Your task to perform on an android device: open app "Spotify" (install if not already installed) Image 0: 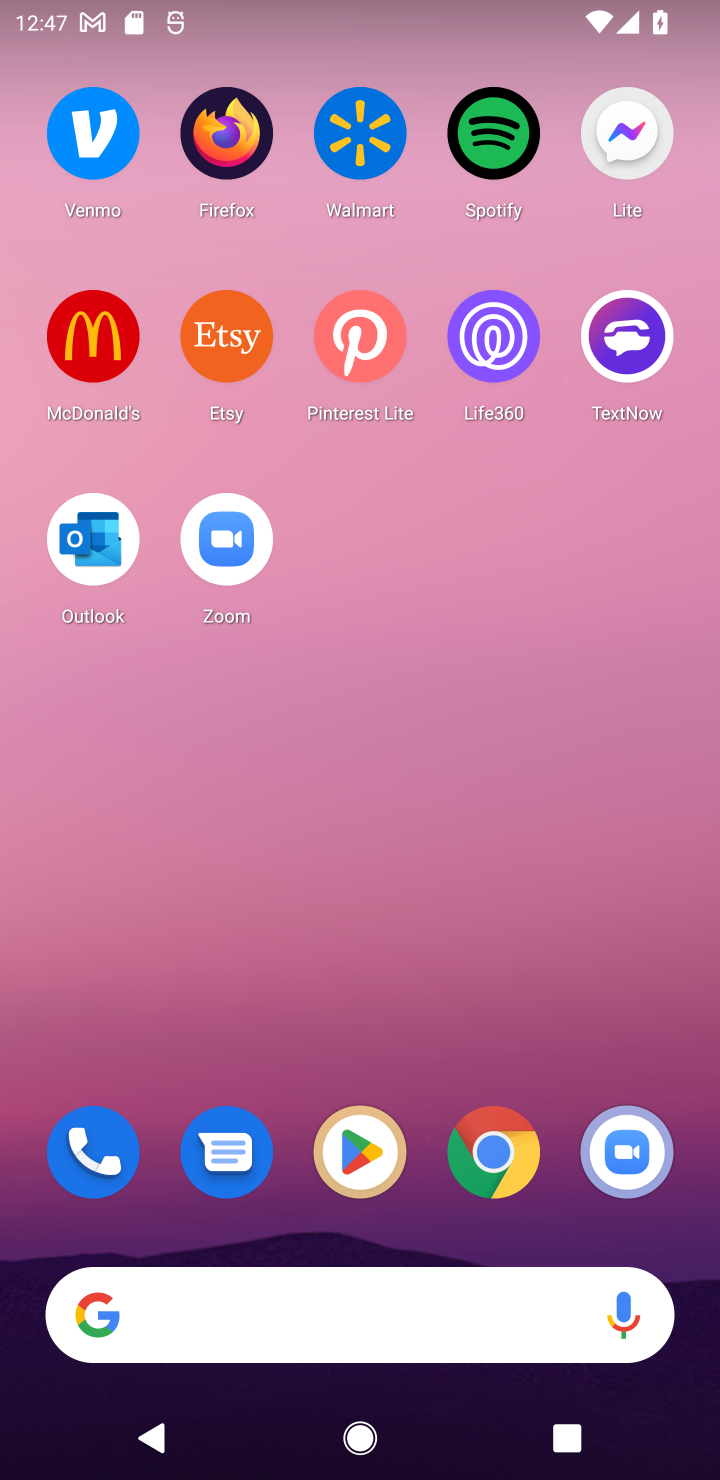
Step 0: click (344, 1157)
Your task to perform on an android device: open app "Spotify" (install if not already installed) Image 1: 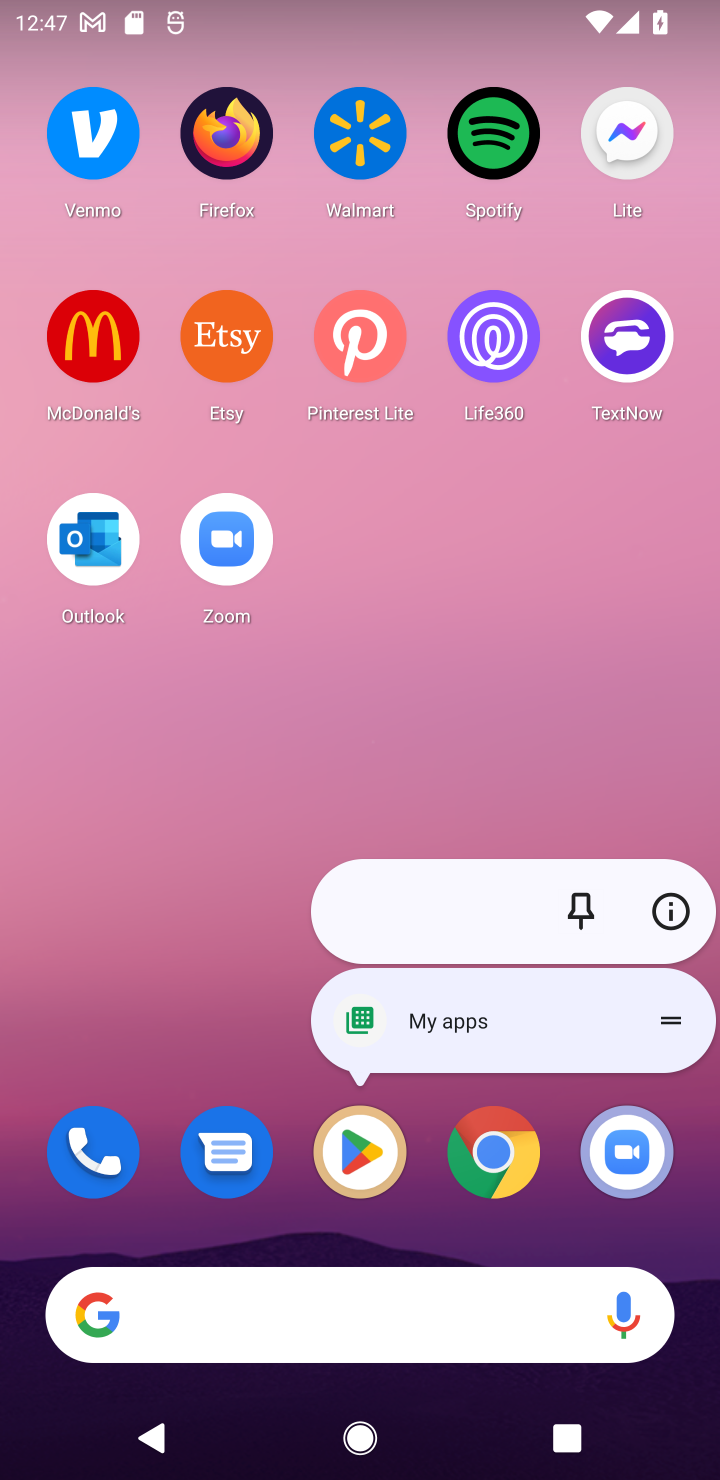
Step 1: click (325, 1157)
Your task to perform on an android device: open app "Spotify" (install if not already installed) Image 2: 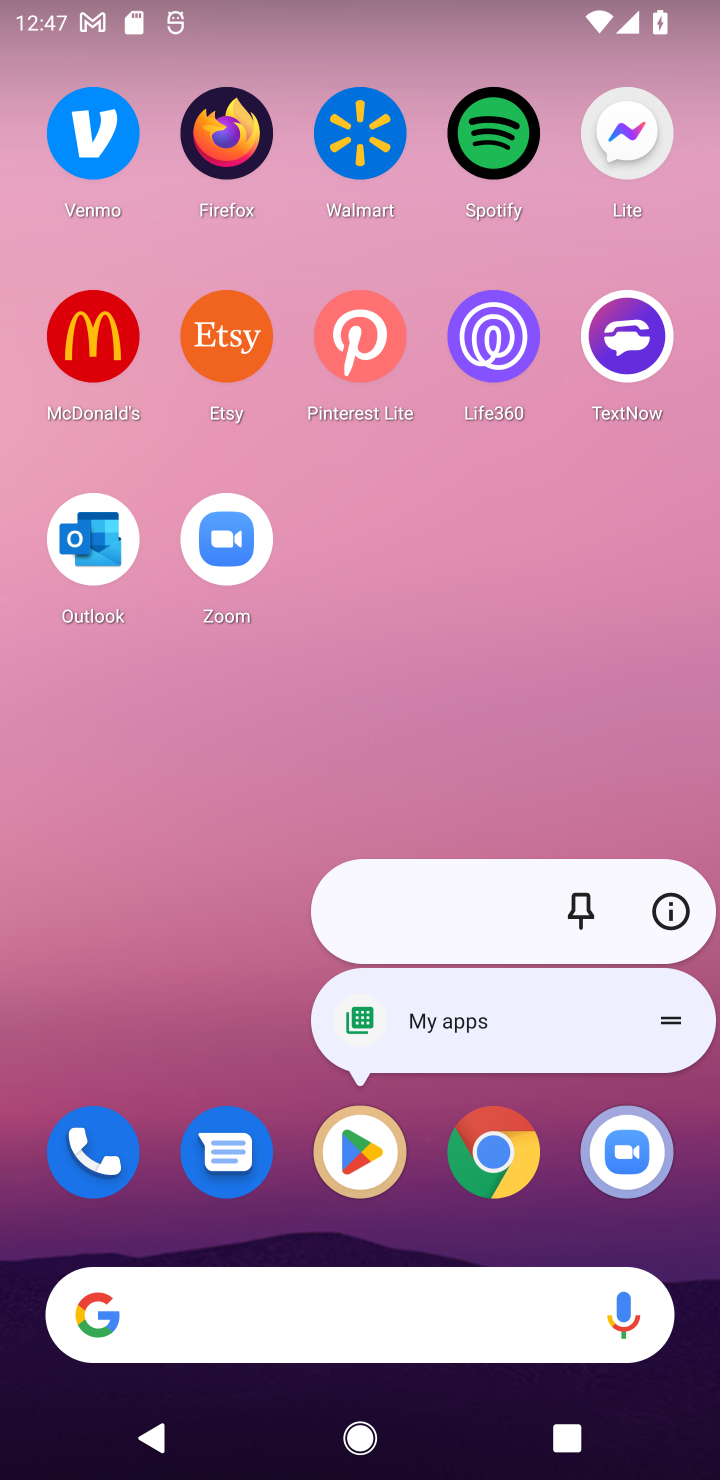
Step 2: click (349, 1165)
Your task to perform on an android device: open app "Spotify" (install if not already installed) Image 3: 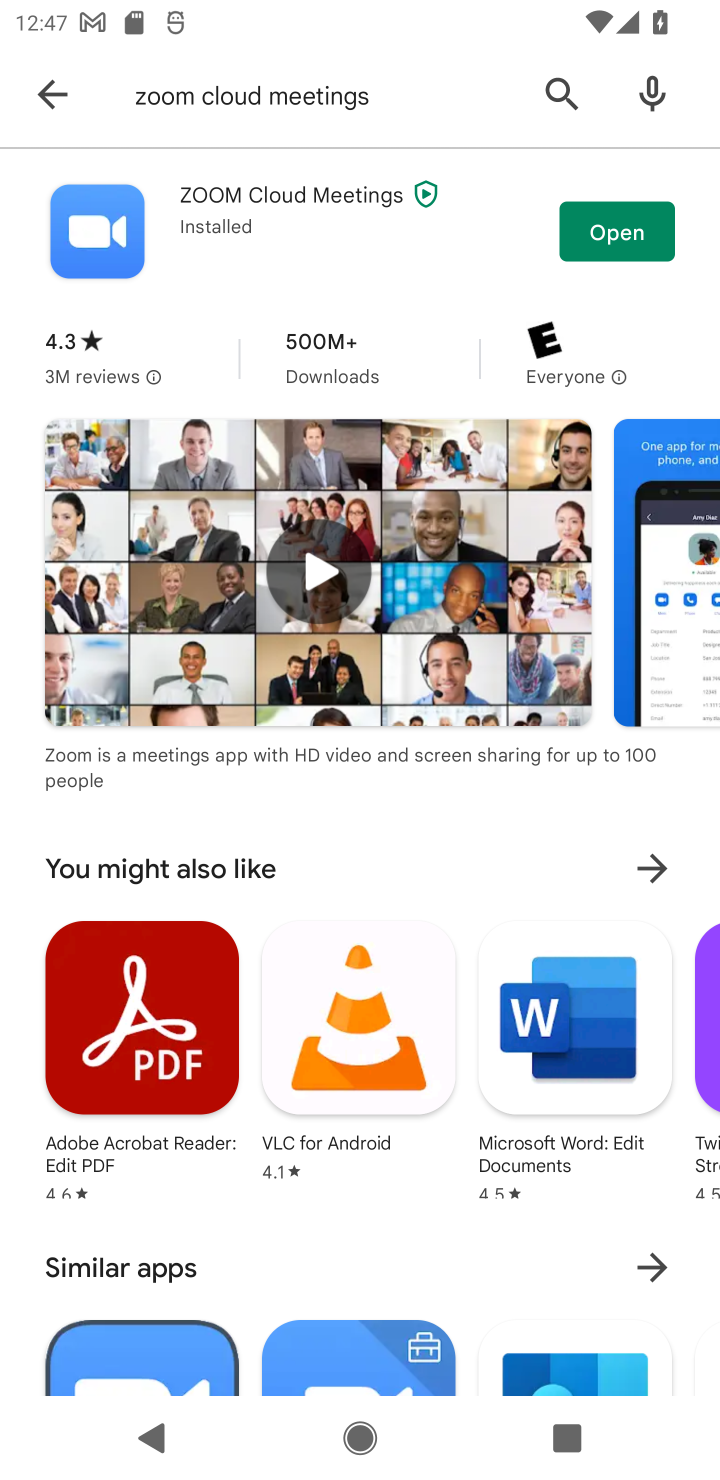
Step 3: click (51, 90)
Your task to perform on an android device: open app "Spotify" (install if not already installed) Image 4: 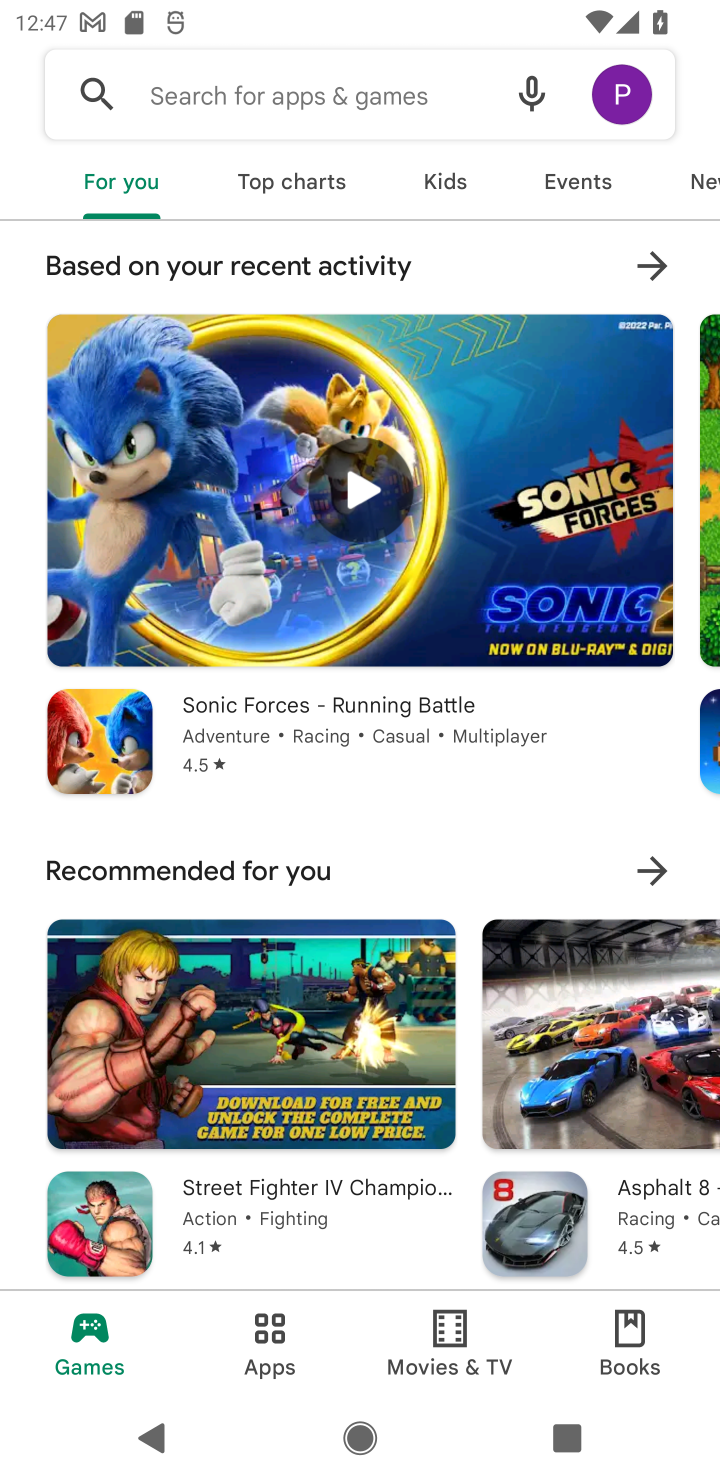
Step 4: click (298, 90)
Your task to perform on an android device: open app "Spotify" (install if not already installed) Image 5: 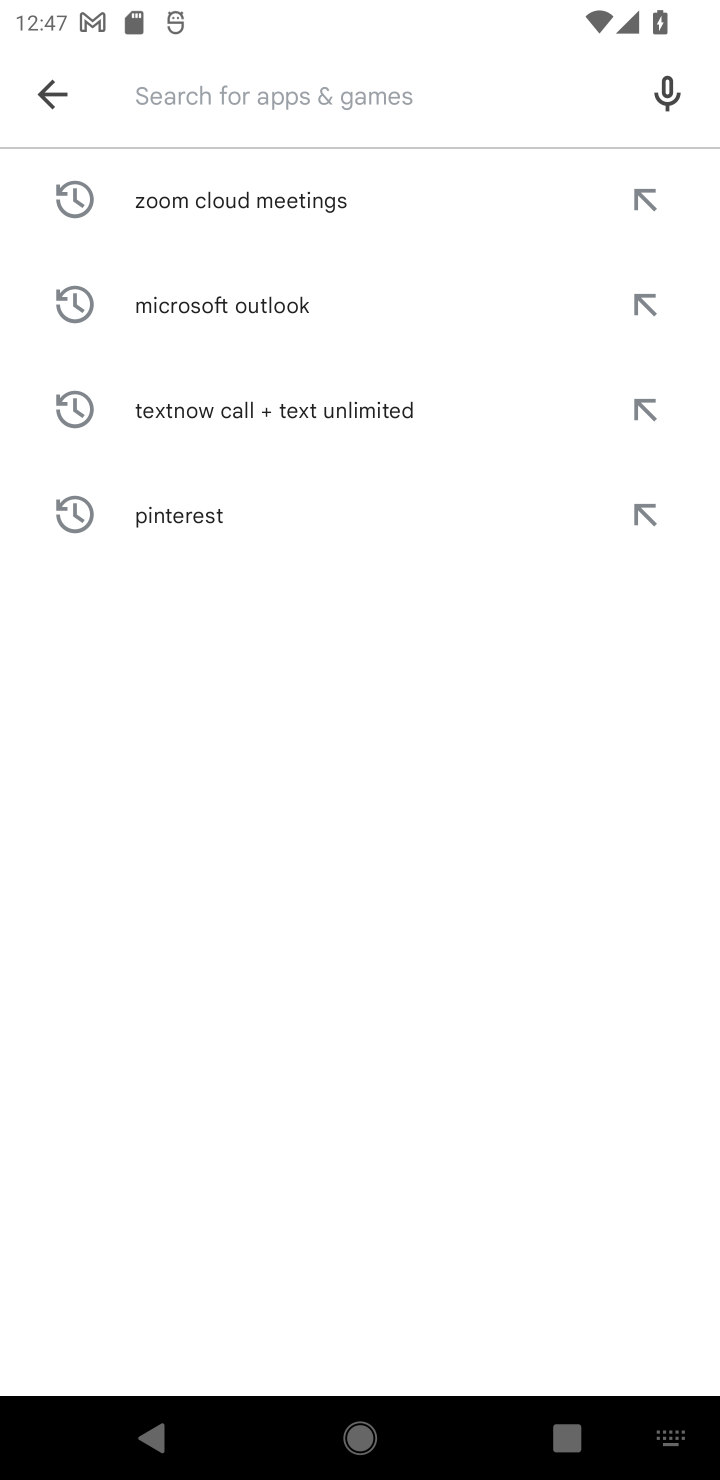
Step 5: type "Spotify"
Your task to perform on an android device: open app "Spotify" (install if not already installed) Image 6: 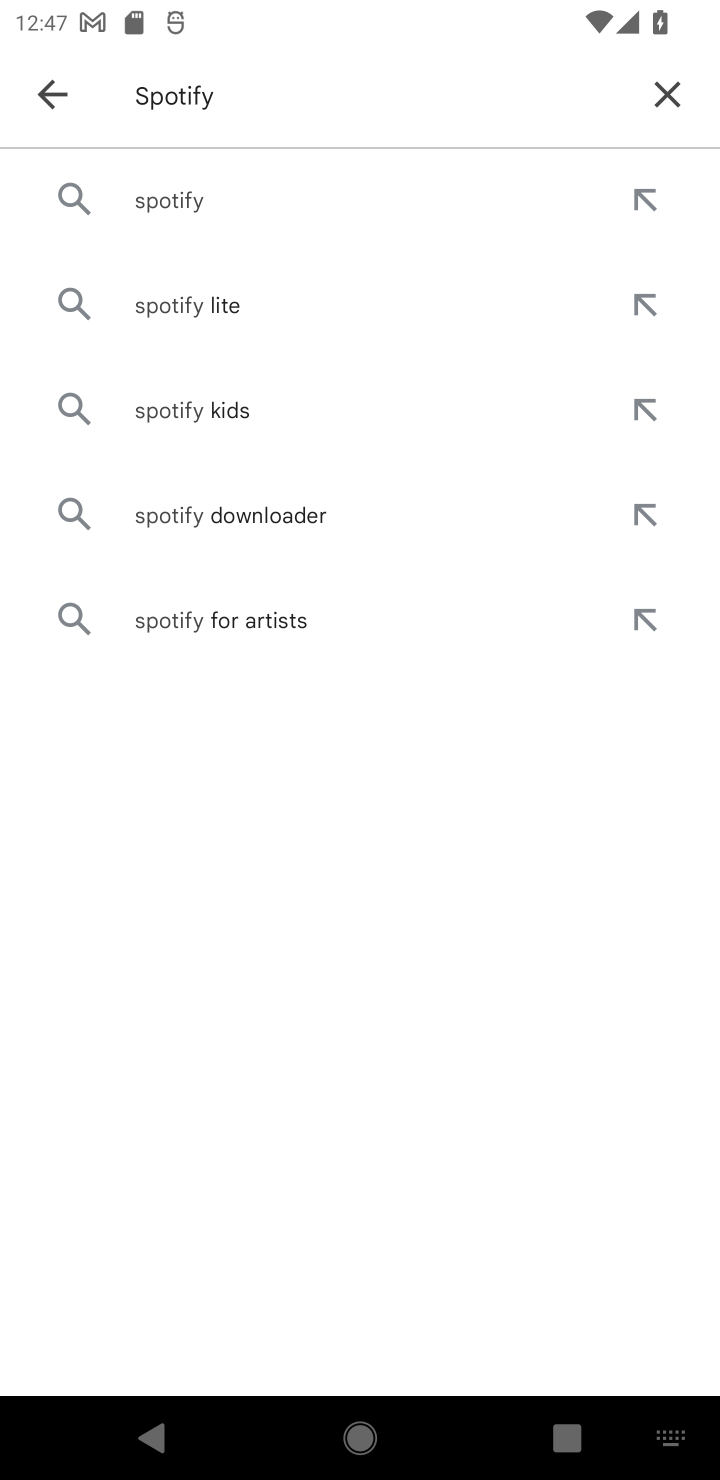
Step 6: click (139, 190)
Your task to perform on an android device: open app "Spotify" (install if not already installed) Image 7: 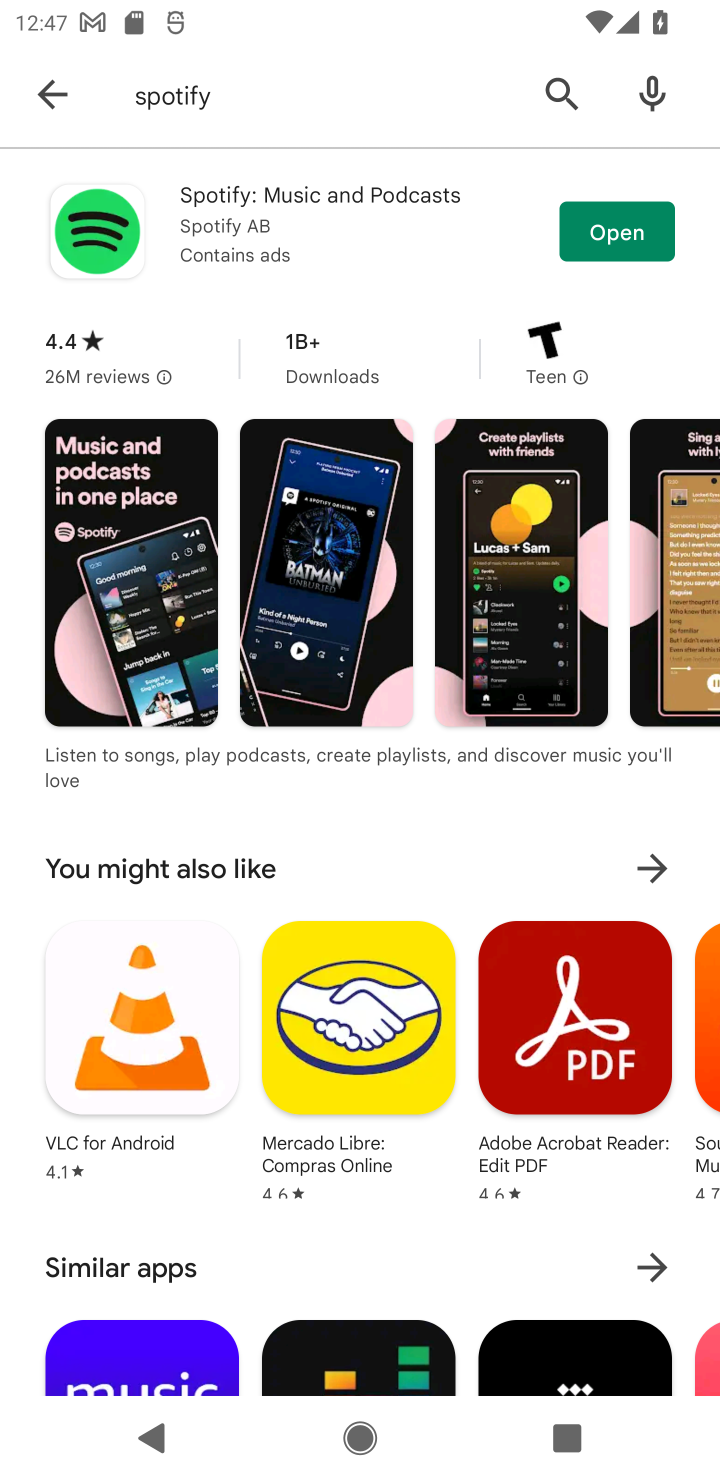
Step 7: click (606, 227)
Your task to perform on an android device: open app "Spotify" (install if not already installed) Image 8: 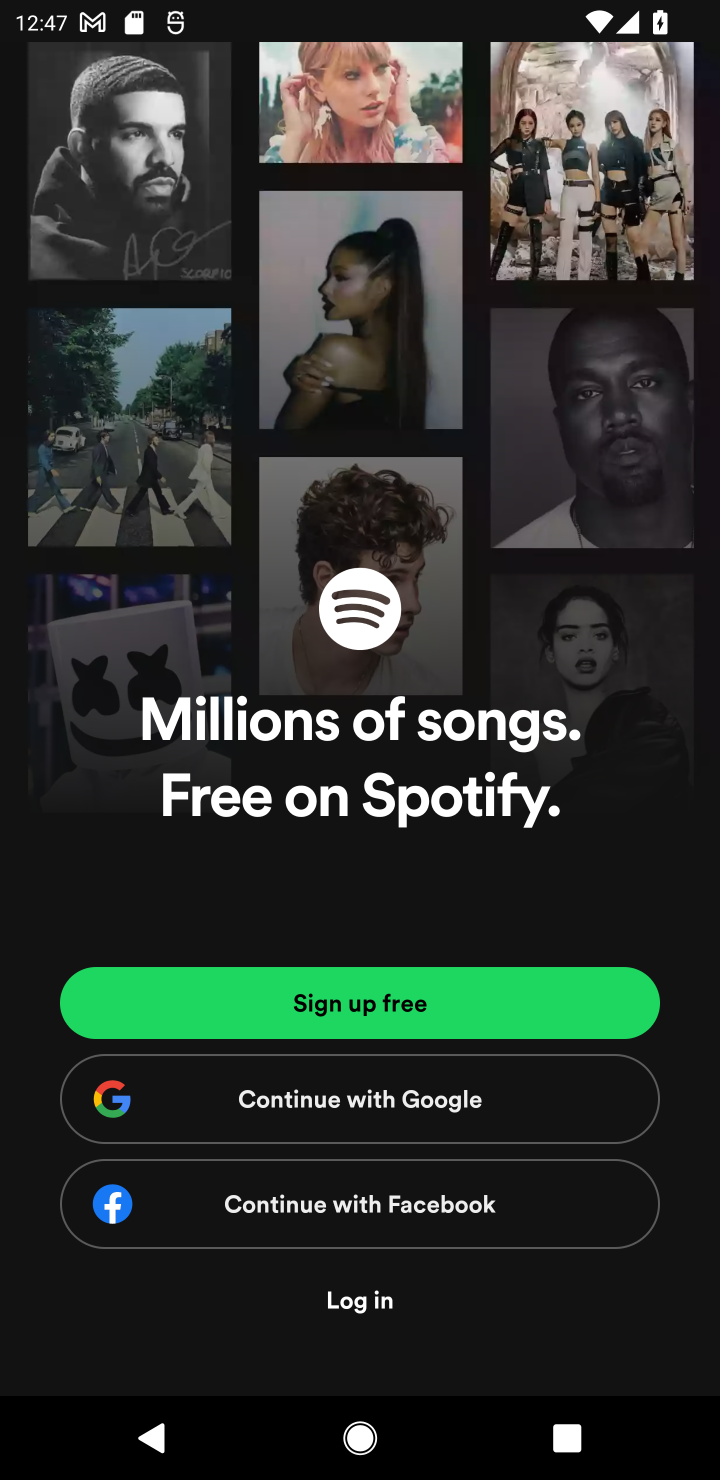
Step 8: task complete